Your task to perform on an android device: make emails show in primary in the gmail app Image 0: 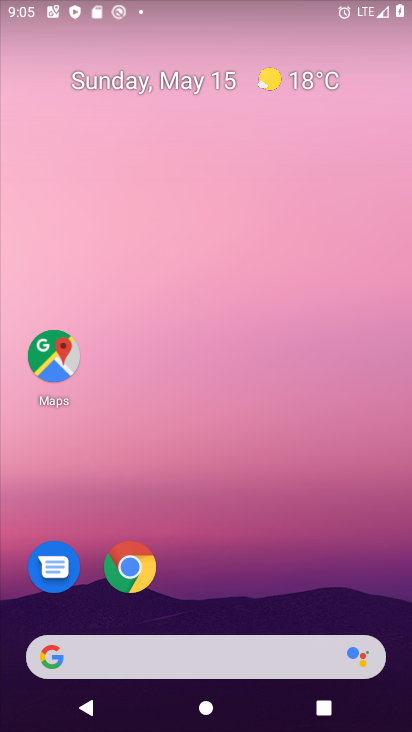
Step 0: drag from (266, 660) to (325, 73)
Your task to perform on an android device: make emails show in primary in the gmail app Image 1: 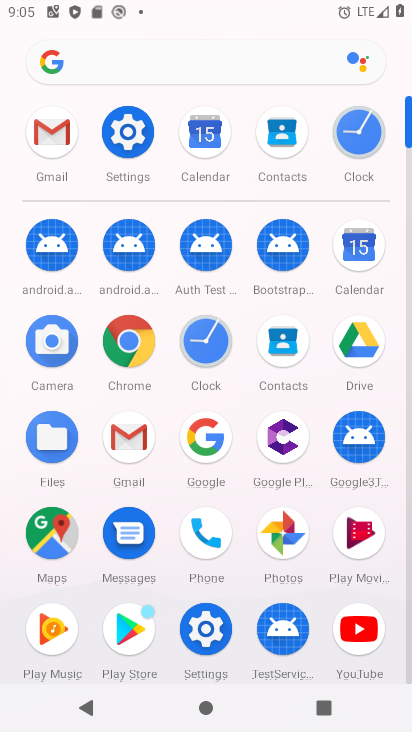
Step 1: click (130, 433)
Your task to perform on an android device: make emails show in primary in the gmail app Image 2: 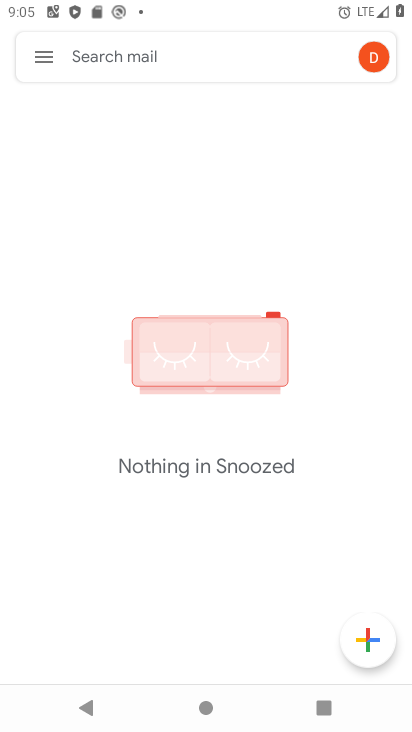
Step 2: click (40, 62)
Your task to perform on an android device: make emails show in primary in the gmail app Image 3: 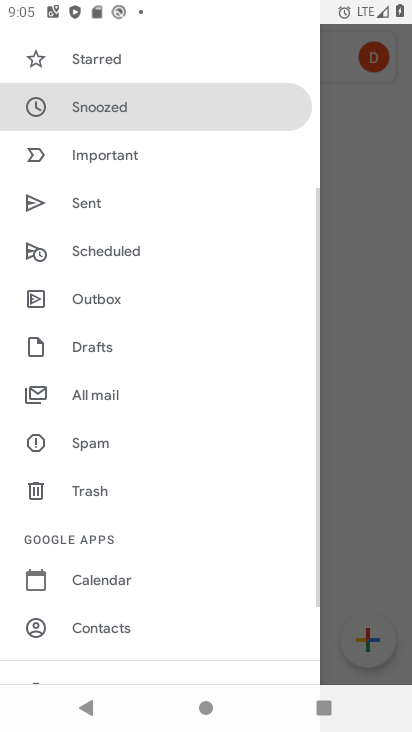
Step 3: drag from (165, 641) to (251, 103)
Your task to perform on an android device: make emails show in primary in the gmail app Image 4: 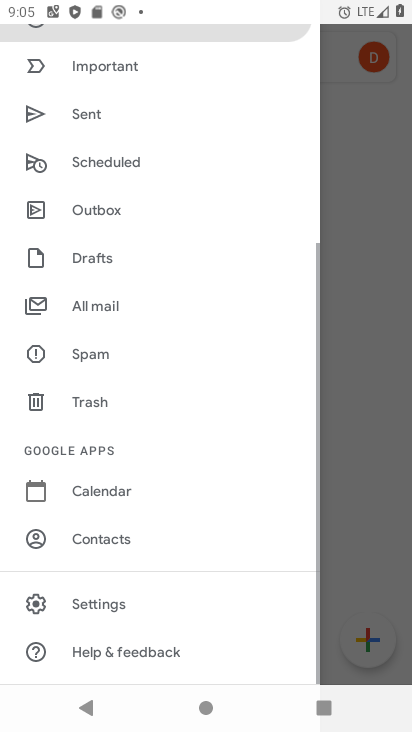
Step 4: click (122, 605)
Your task to perform on an android device: make emails show in primary in the gmail app Image 5: 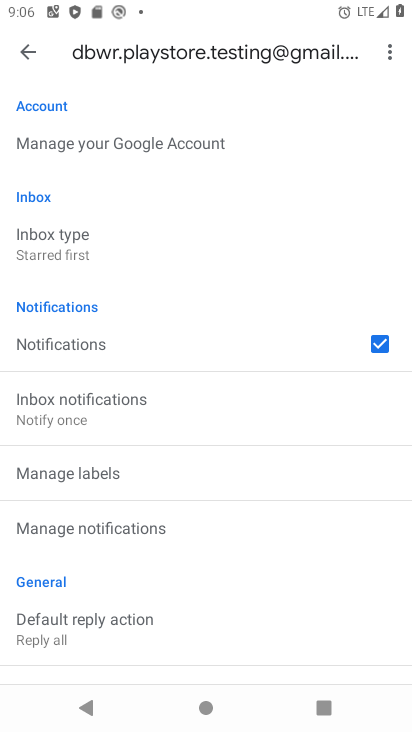
Step 5: click (94, 248)
Your task to perform on an android device: make emails show in primary in the gmail app Image 6: 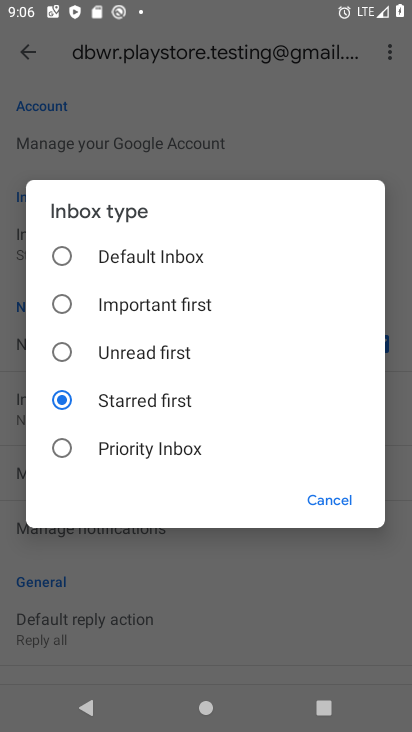
Step 6: click (168, 249)
Your task to perform on an android device: make emails show in primary in the gmail app Image 7: 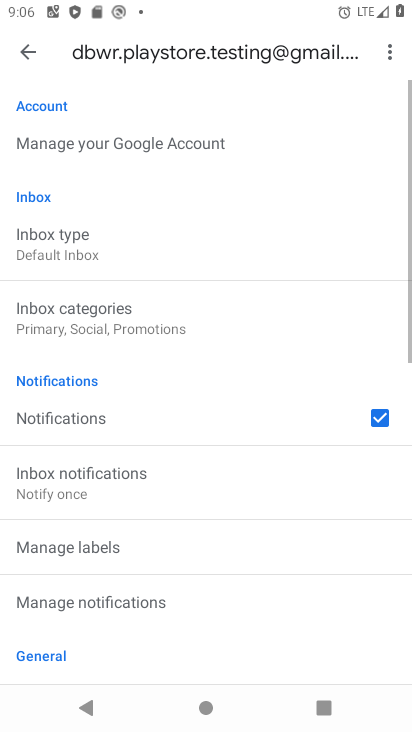
Step 7: click (67, 333)
Your task to perform on an android device: make emails show in primary in the gmail app Image 8: 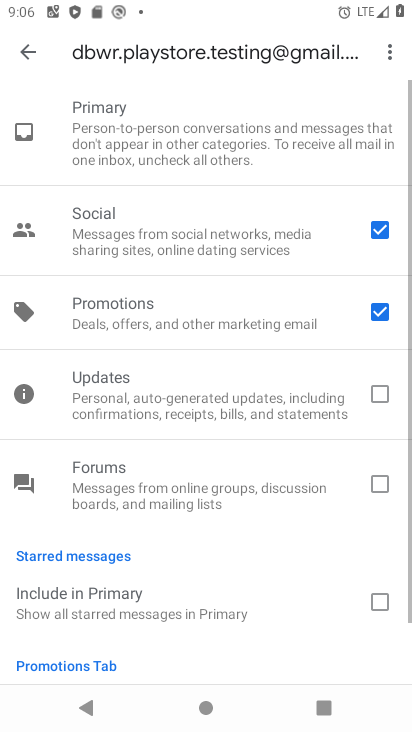
Step 8: click (383, 224)
Your task to perform on an android device: make emails show in primary in the gmail app Image 9: 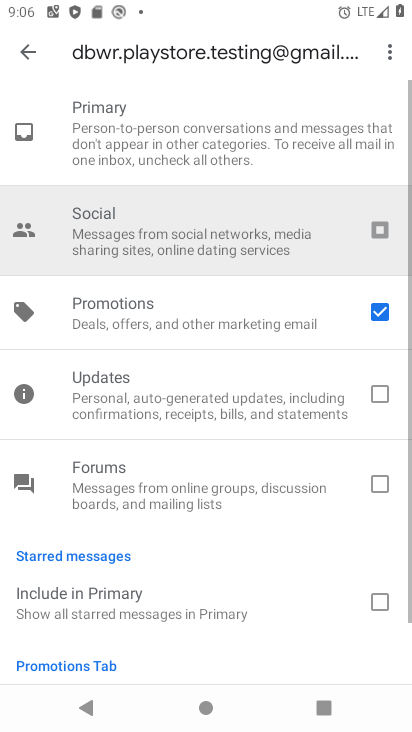
Step 9: click (379, 311)
Your task to perform on an android device: make emails show in primary in the gmail app Image 10: 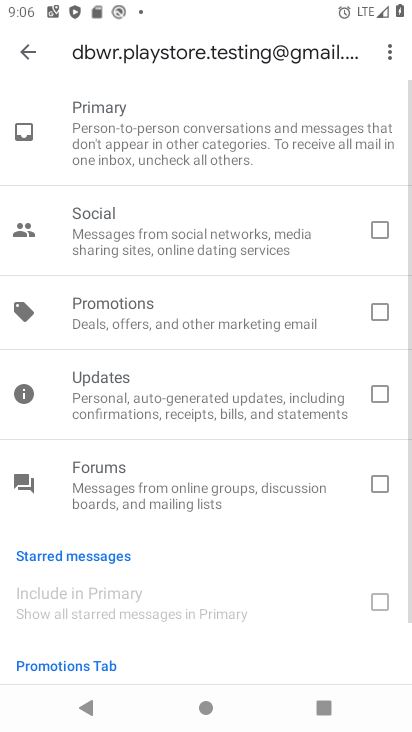
Step 10: task complete